Your task to perform on an android device: check data usage Image 0: 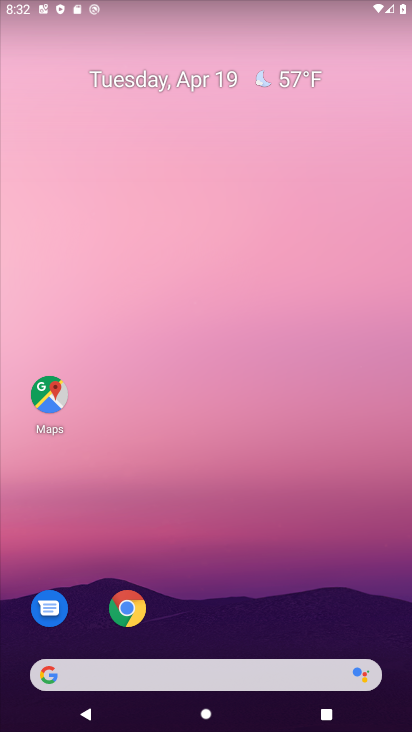
Step 0: drag from (206, 520) to (191, 216)
Your task to perform on an android device: check data usage Image 1: 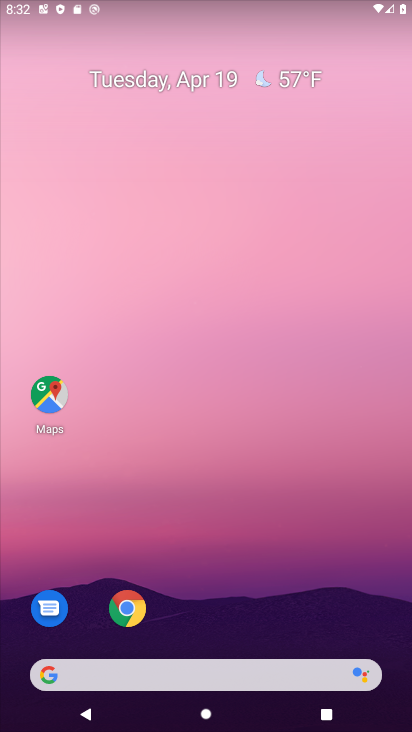
Step 1: drag from (244, 589) to (296, 104)
Your task to perform on an android device: check data usage Image 2: 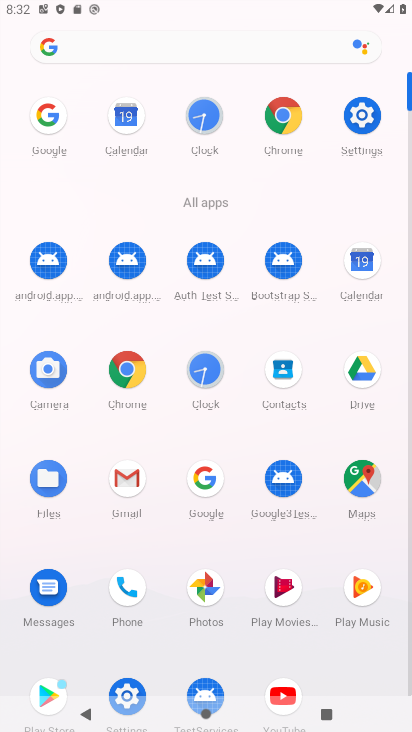
Step 2: click (360, 117)
Your task to perform on an android device: check data usage Image 3: 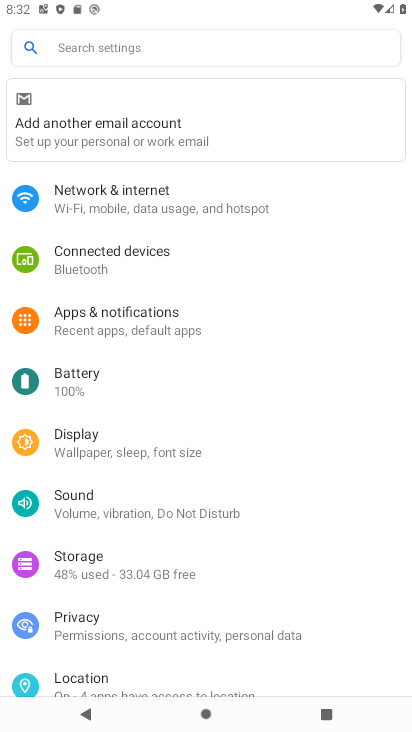
Step 3: click (122, 201)
Your task to perform on an android device: check data usage Image 4: 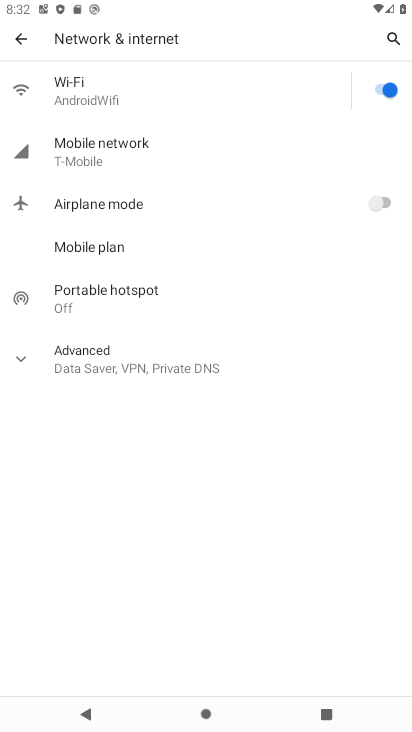
Step 4: click (98, 162)
Your task to perform on an android device: check data usage Image 5: 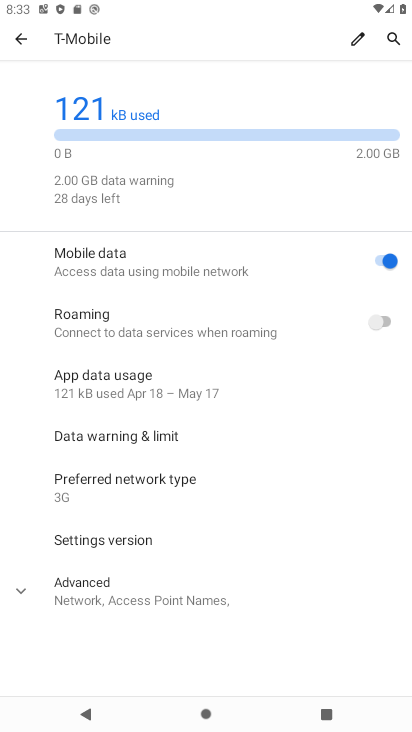
Step 5: task complete